Your task to perform on an android device: Go to Amazon Image 0: 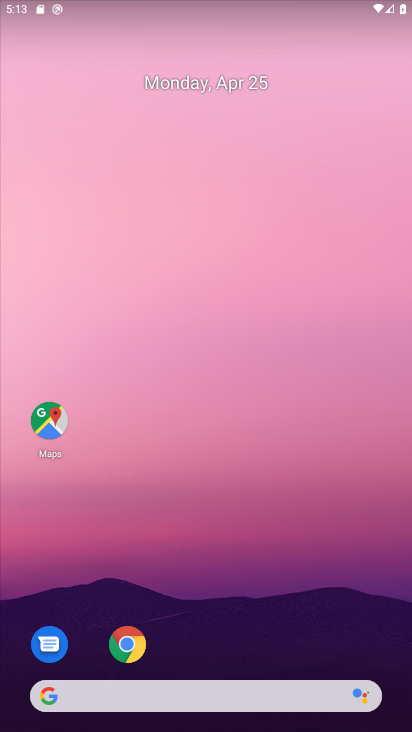
Step 0: click (138, 648)
Your task to perform on an android device: Go to Amazon Image 1: 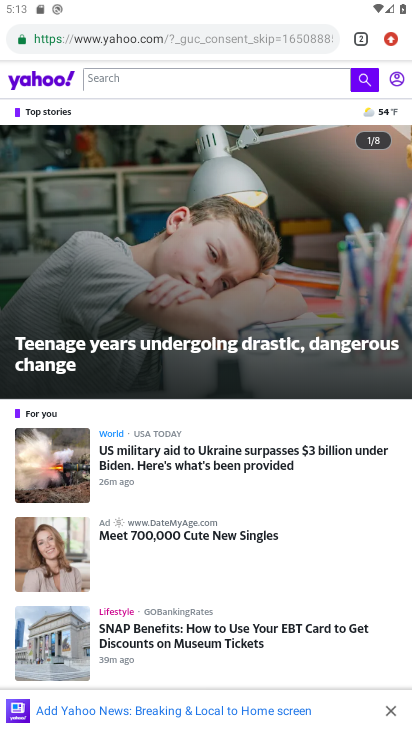
Step 1: click (353, 33)
Your task to perform on an android device: Go to Amazon Image 2: 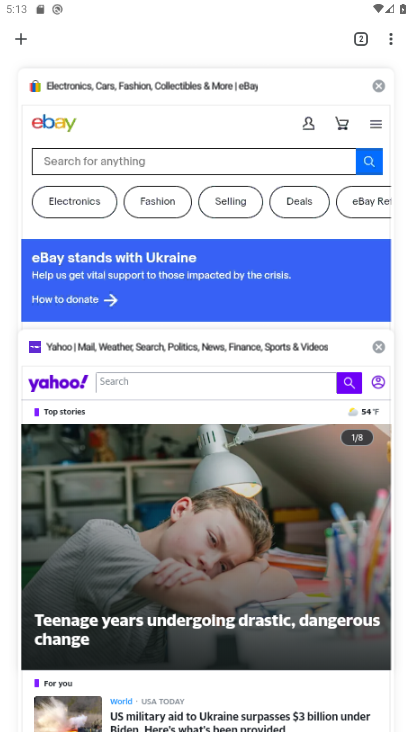
Step 2: click (17, 37)
Your task to perform on an android device: Go to Amazon Image 3: 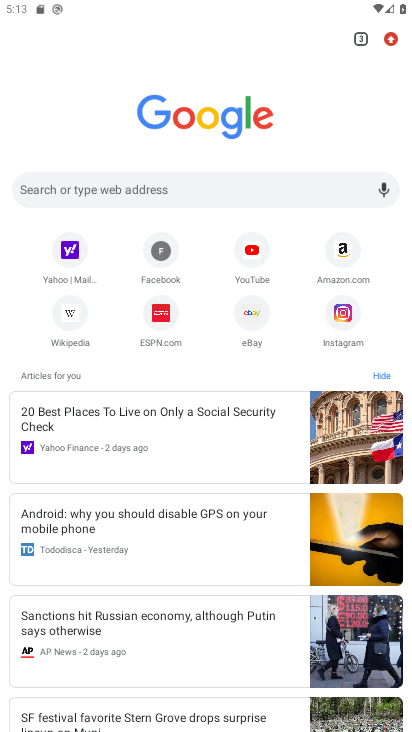
Step 3: click (344, 251)
Your task to perform on an android device: Go to Amazon Image 4: 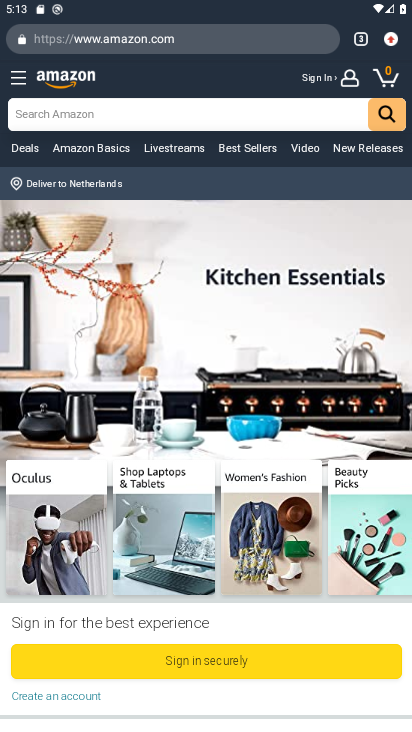
Step 4: task complete